Your task to perform on an android device: add a contact in the contacts app Image 0: 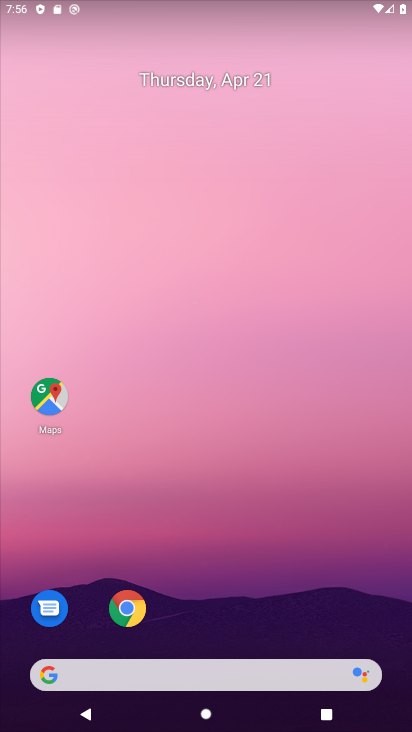
Step 0: drag from (266, 626) to (215, 369)
Your task to perform on an android device: add a contact in the contacts app Image 1: 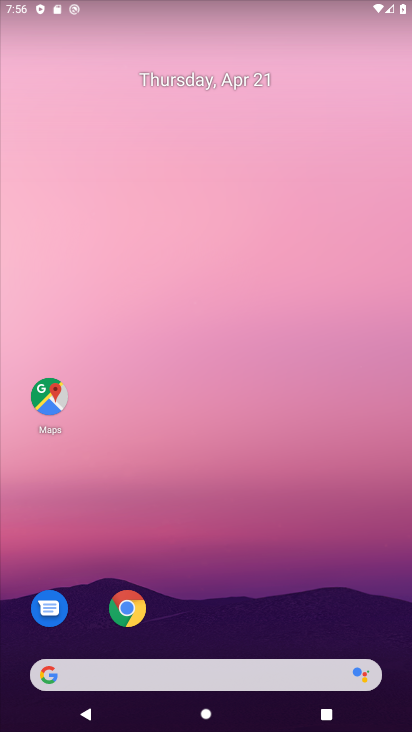
Step 1: drag from (187, 604) to (96, 186)
Your task to perform on an android device: add a contact in the contacts app Image 2: 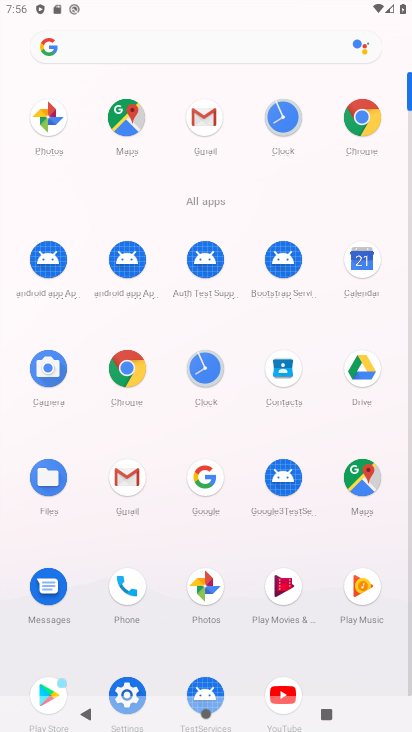
Step 2: click (288, 370)
Your task to perform on an android device: add a contact in the contacts app Image 3: 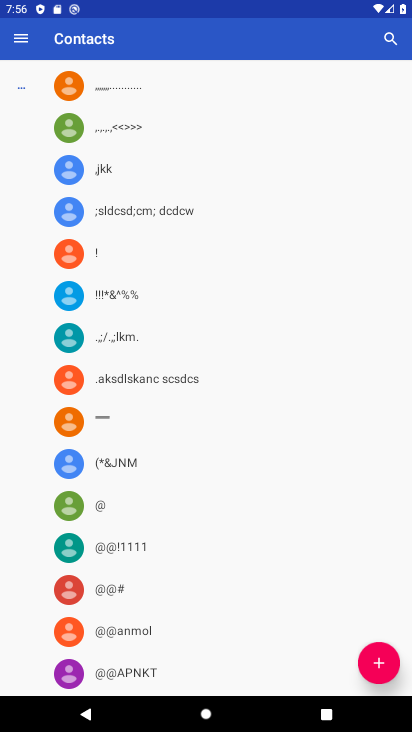
Step 3: click (382, 673)
Your task to perform on an android device: add a contact in the contacts app Image 4: 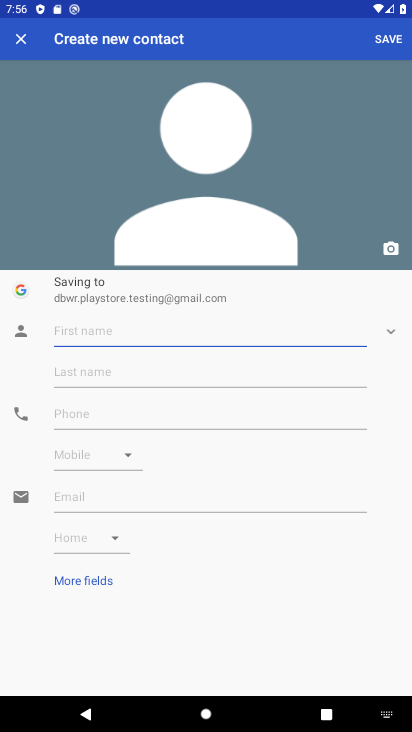
Step 4: type "joe"
Your task to perform on an android device: add a contact in the contacts app Image 5: 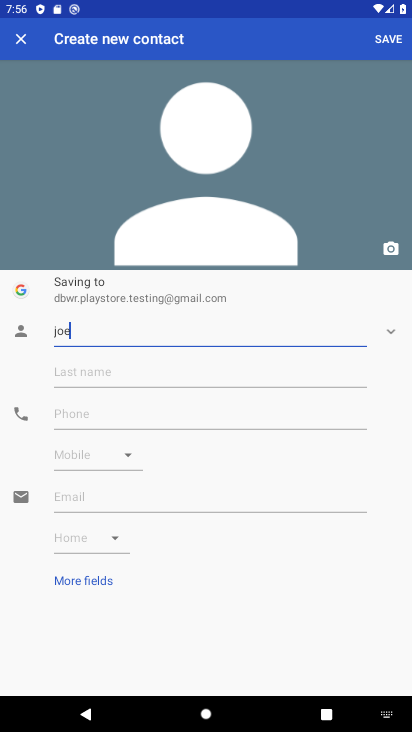
Step 5: click (80, 396)
Your task to perform on an android device: add a contact in the contacts app Image 6: 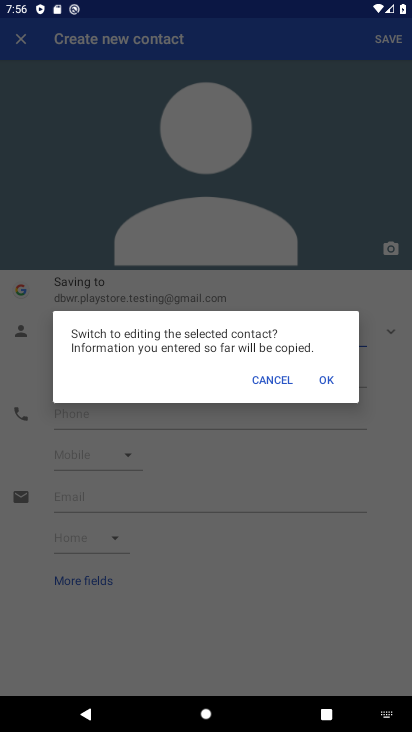
Step 6: click (273, 388)
Your task to perform on an android device: add a contact in the contacts app Image 7: 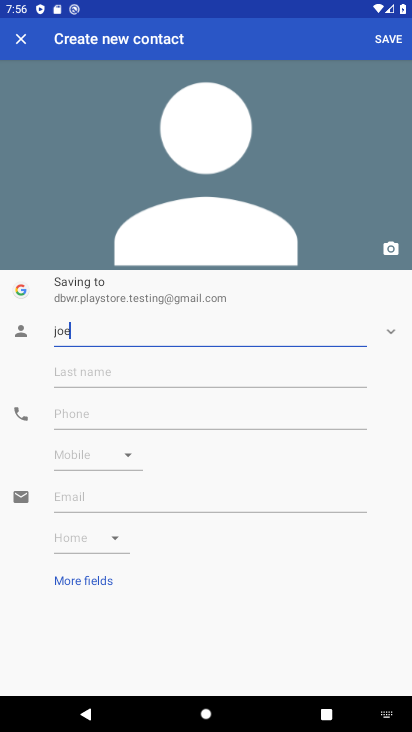
Step 7: type "y"
Your task to perform on an android device: add a contact in the contacts app Image 8: 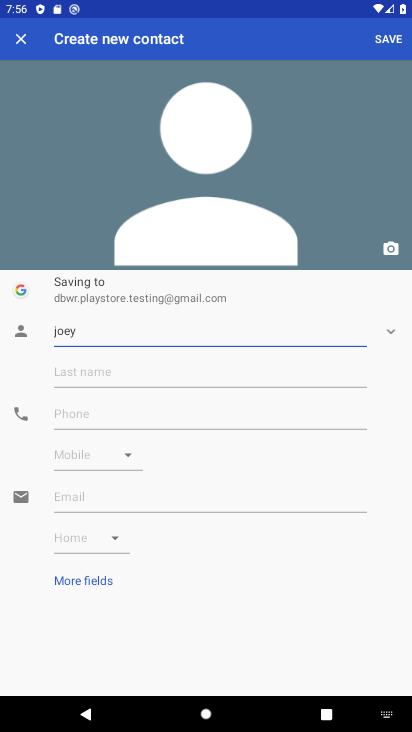
Step 8: click (96, 403)
Your task to perform on an android device: add a contact in the contacts app Image 9: 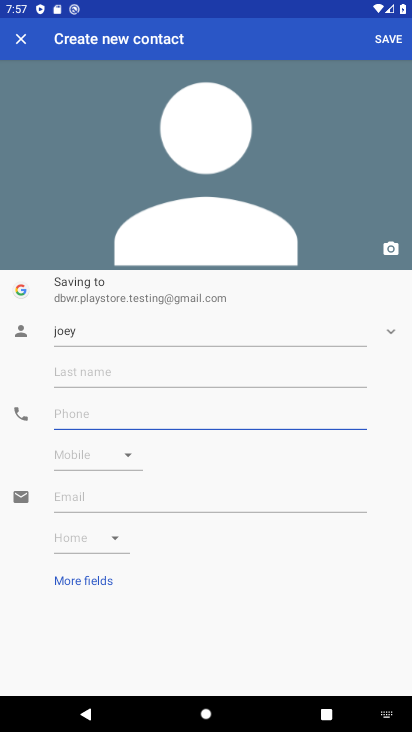
Step 9: type "9876545678"
Your task to perform on an android device: add a contact in the contacts app Image 10: 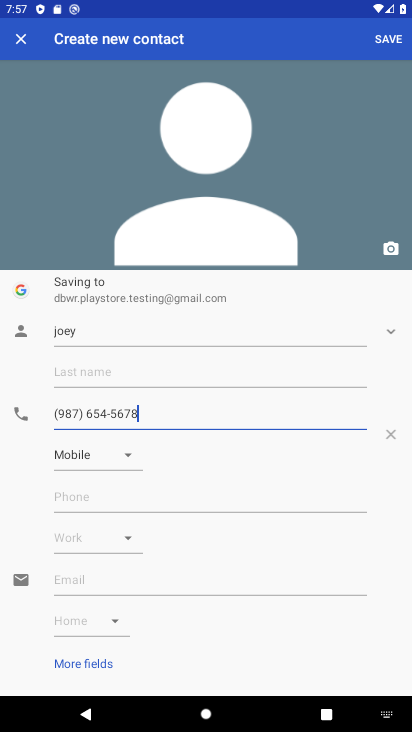
Step 10: click (382, 47)
Your task to perform on an android device: add a contact in the contacts app Image 11: 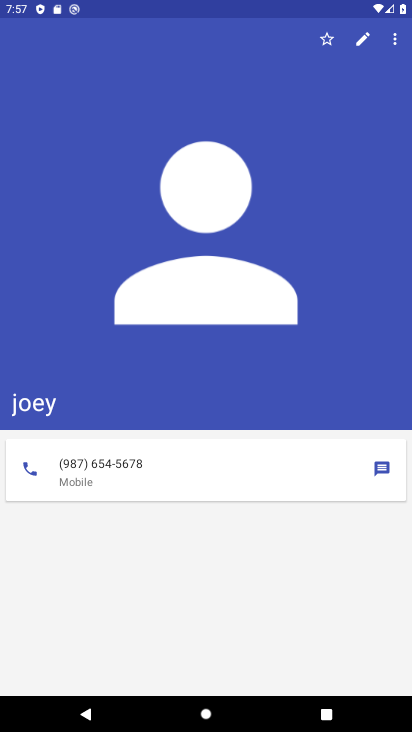
Step 11: task complete